Your task to perform on an android device: Open network settings Image 0: 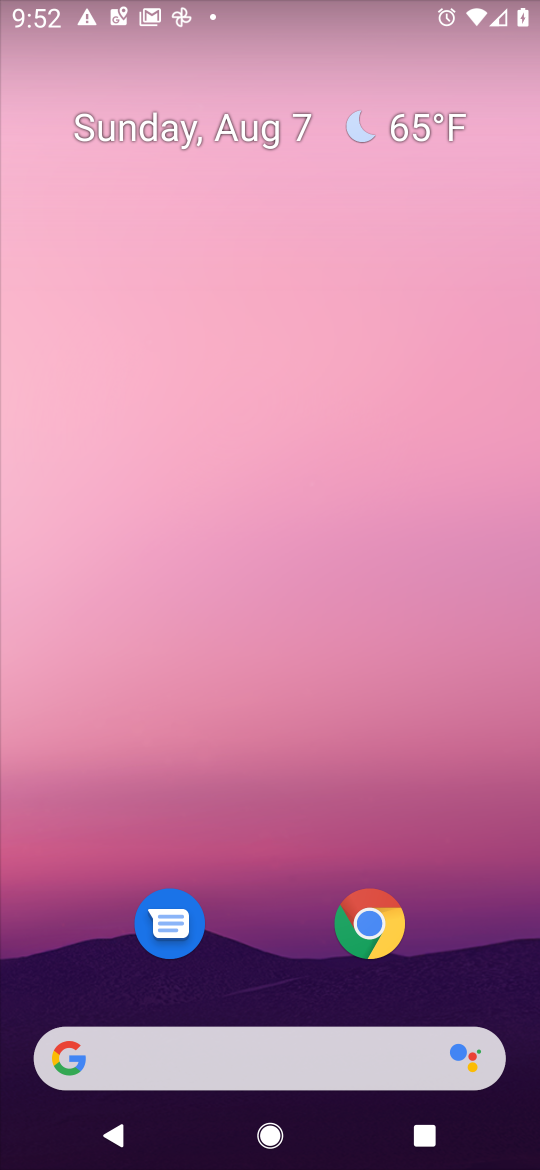
Step 0: drag from (463, 936) to (207, 170)
Your task to perform on an android device: Open network settings Image 1: 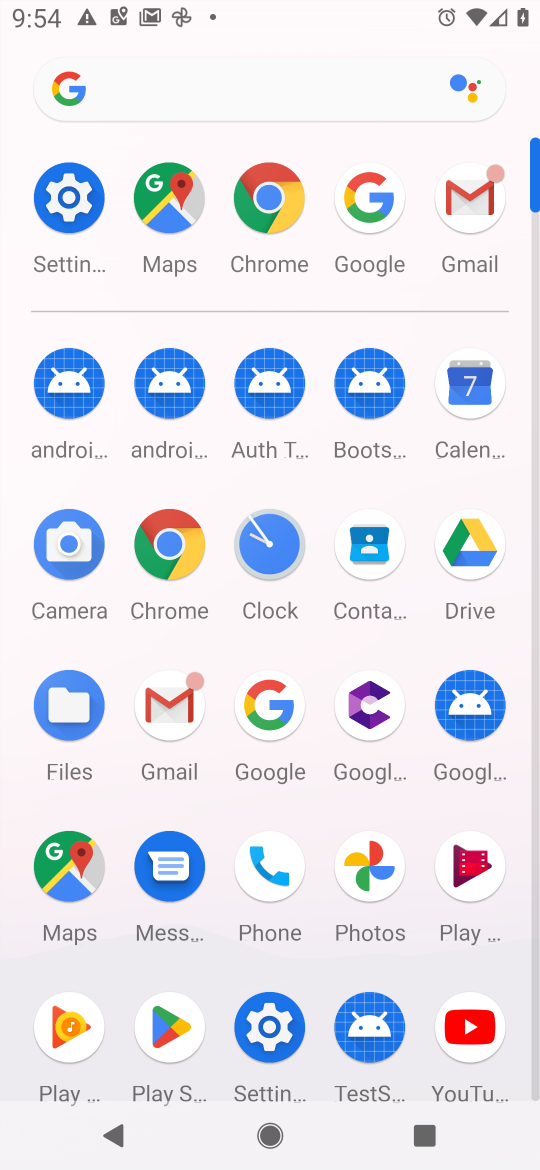
Step 1: click (253, 1030)
Your task to perform on an android device: Open network settings Image 2: 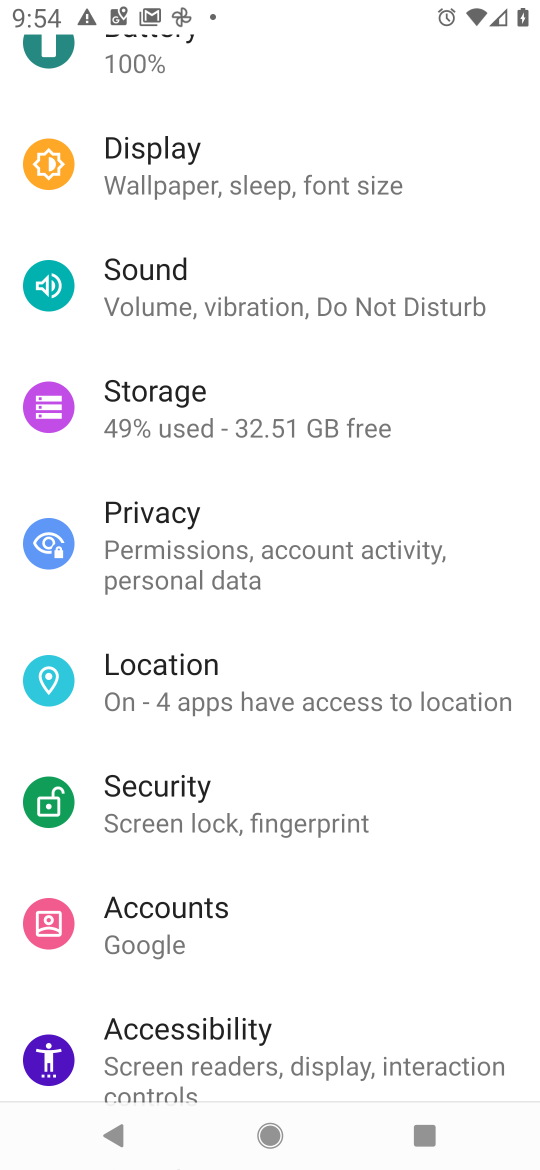
Step 2: drag from (162, 215) to (253, 1160)
Your task to perform on an android device: Open network settings Image 3: 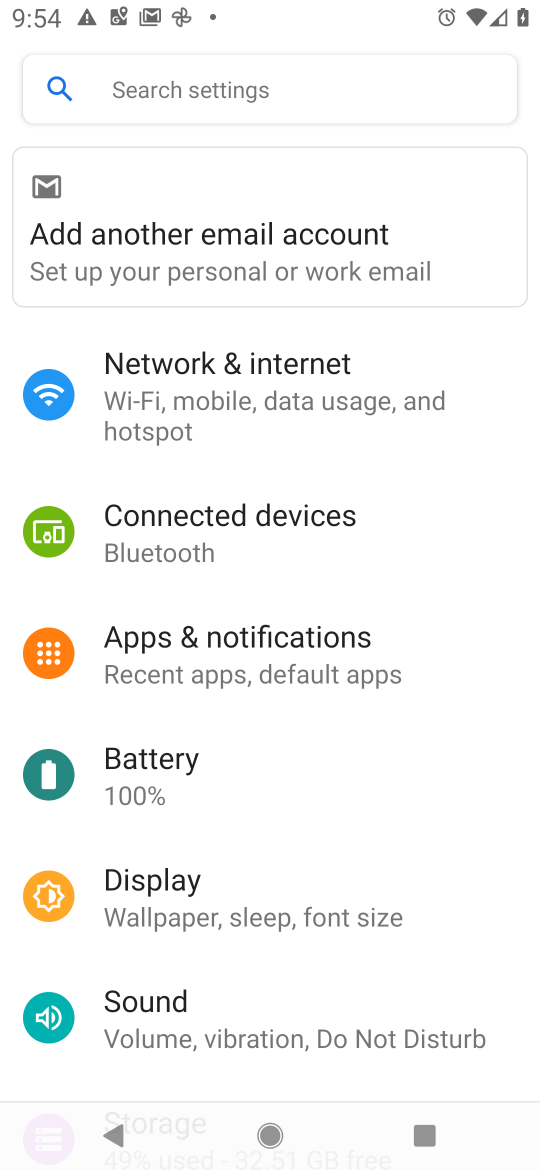
Step 3: click (228, 397)
Your task to perform on an android device: Open network settings Image 4: 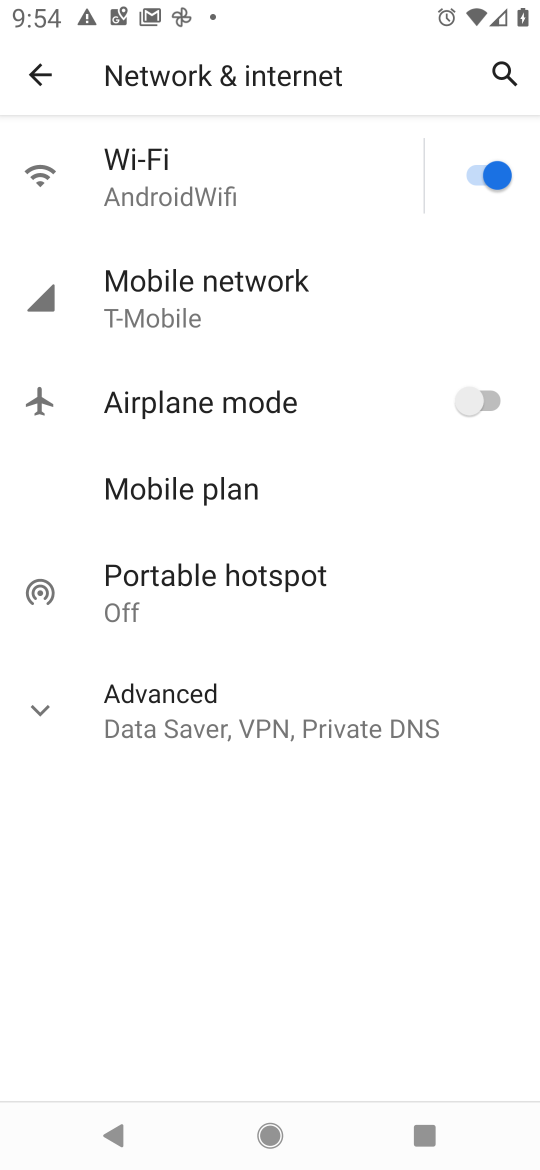
Step 4: task complete